Your task to perform on an android device: turn off wifi Image 0: 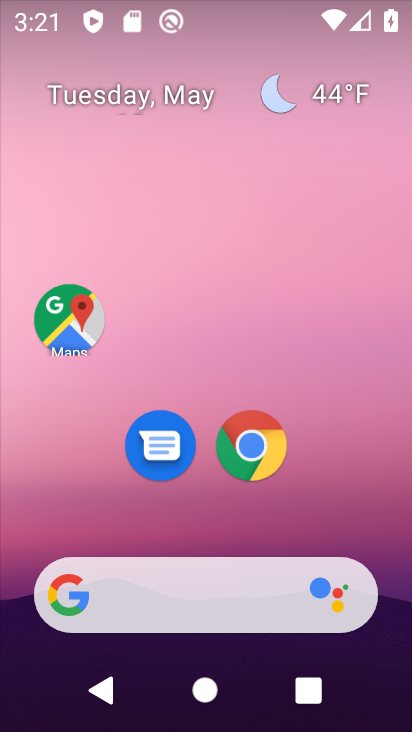
Step 0: drag from (108, 12) to (135, 560)
Your task to perform on an android device: turn off wifi Image 1: 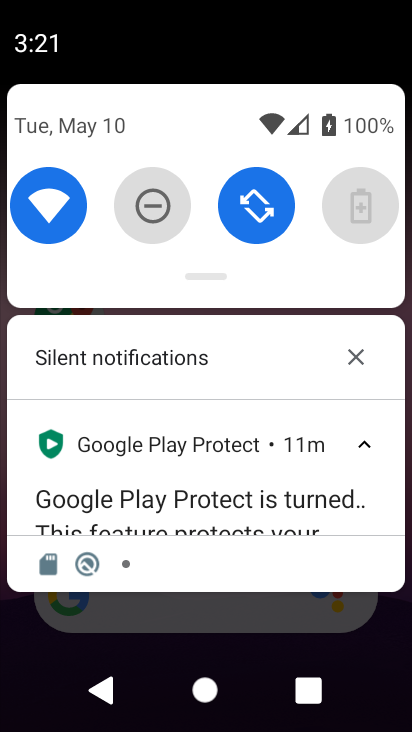
Step 1: click (55, 199)
Your task to perform on an android device: turn off wifi Image 2: 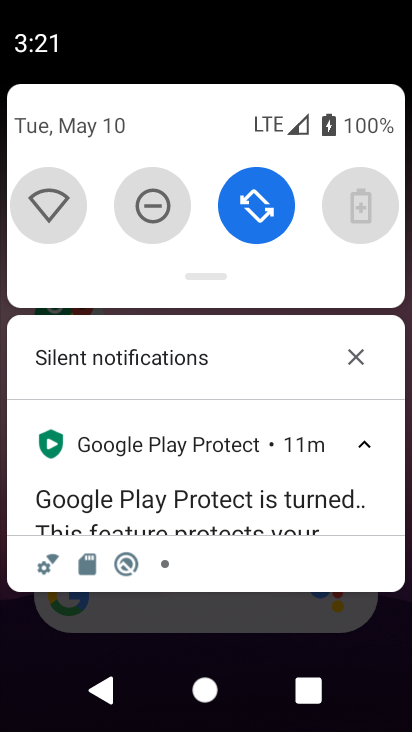
Step 2: task complete